Your task to perform on an android device: uninstall "Calculator" Image 0: 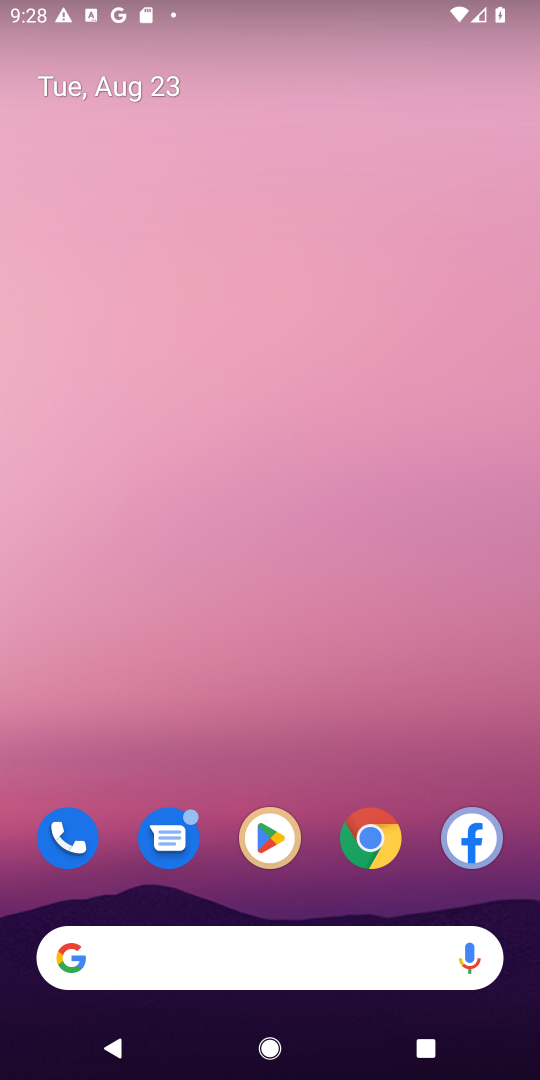
Step 0: click (277, 822)
Your task to perform on an android device: uninstall "Calculator" Image 1: 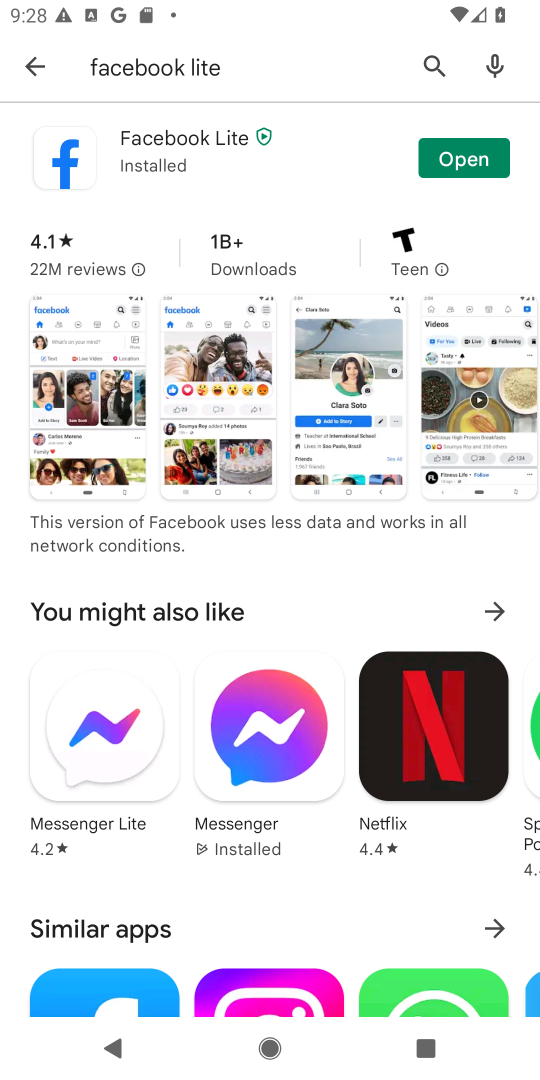
Step 1: click (432, 73)
Your task to perform on an android device: uninstall "Calculator" Image 2: 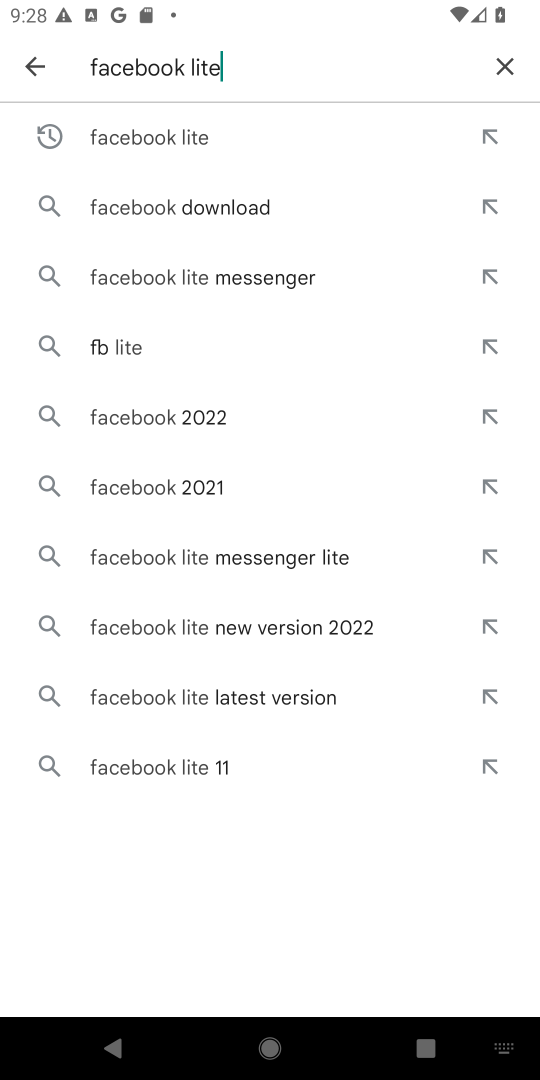
Step 2: click (490, 61)
Your task to perform on an android device: uninstall "Calculator" Image 3: 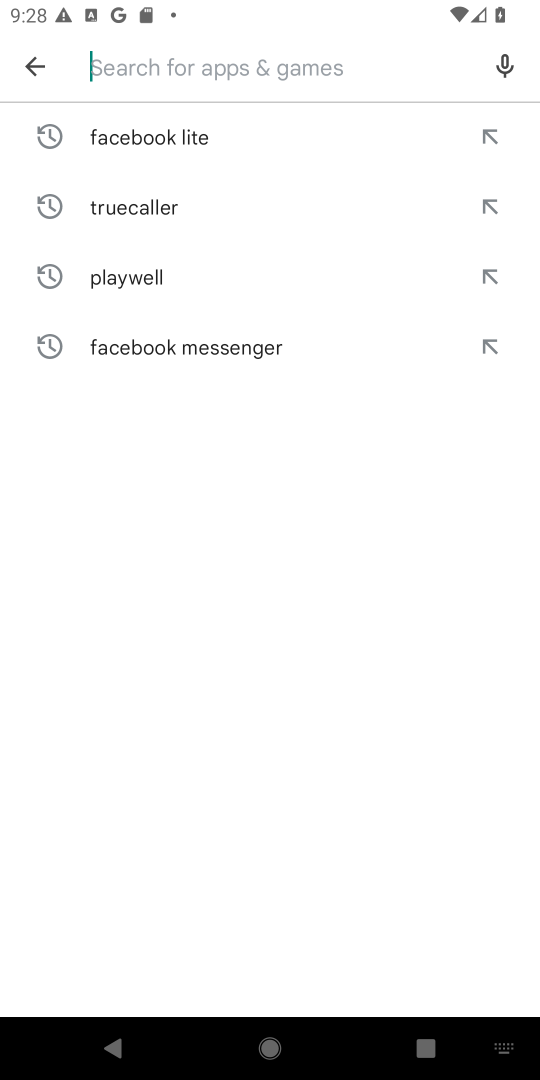
Step 3: type "Calculator"
Your task to perform on an android device: uninstall "Calculator" Image 4: 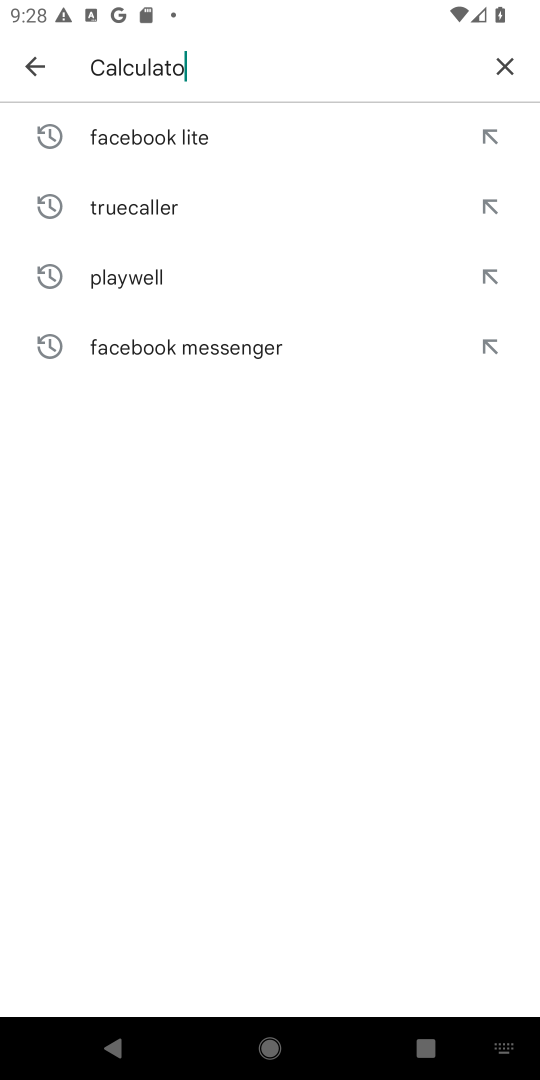
Step 4: type ""
Your task to perform on an android device: uninstall "Calculator" Image 5: 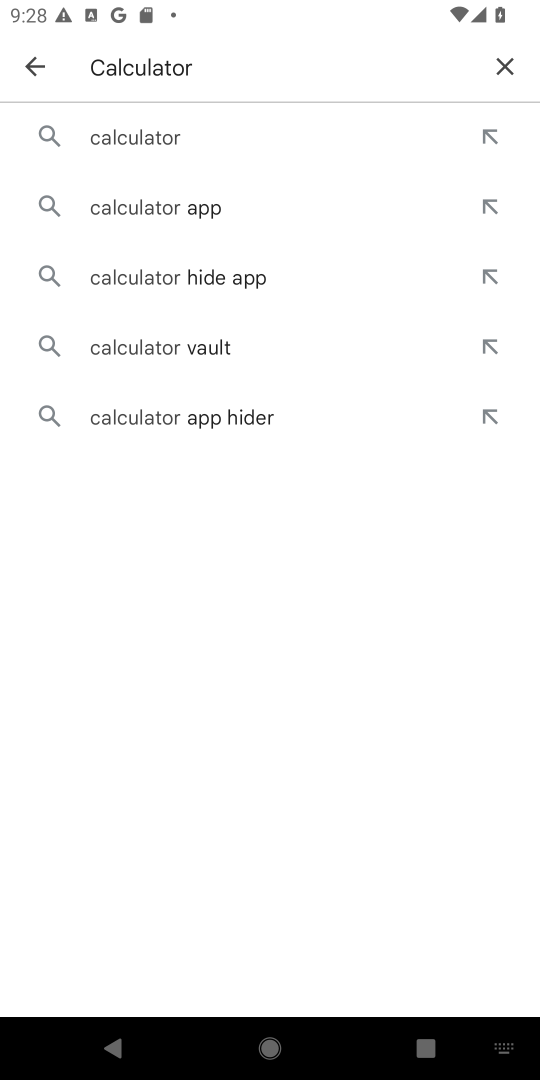
Step 5: click (149, 142)
Your task to perform on an android device: uninstall "Calculator" Image 6: 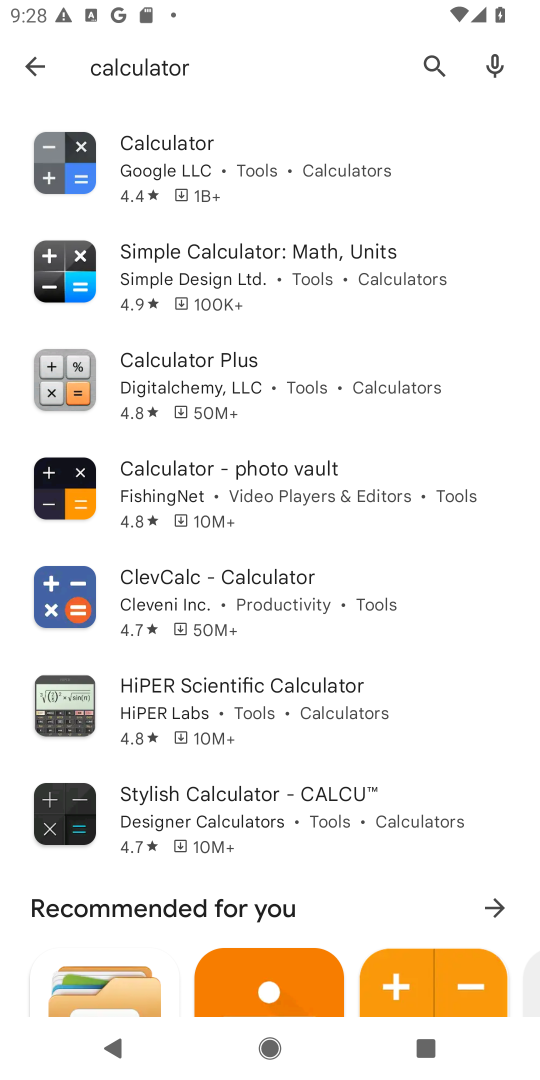
Step 6: click (177, 178)
Your task to perform on an android device: uninstall "Calculator" Image 7: 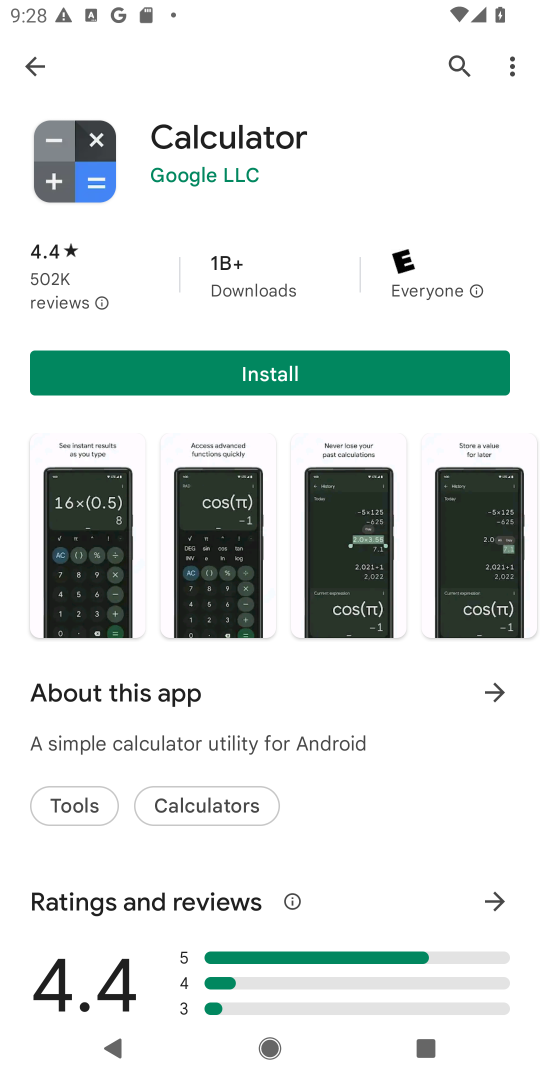
Step 7: task complete